Your task to perform on an android device: Open Reddit.com Image 0: 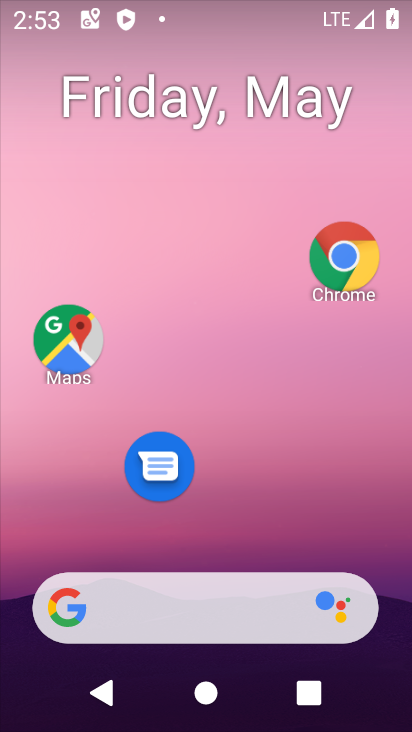
Step 0: click (346, 246)
Your task to perform on an android device: Open Reddit.com Image 1: 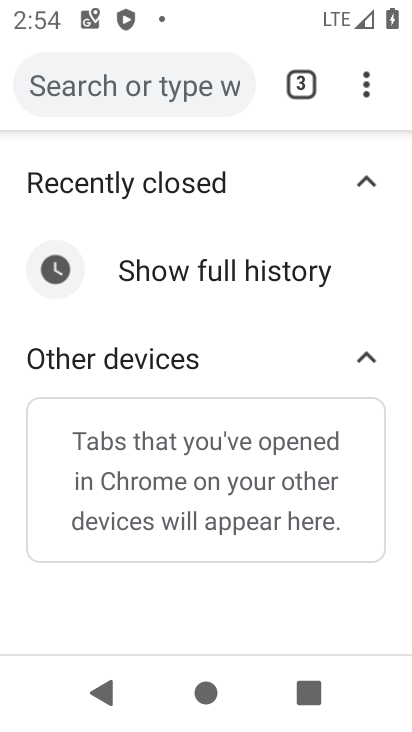
Step 1: click (147, 83)
Your task to perform on an android device: Open Reddit.com Image 2: 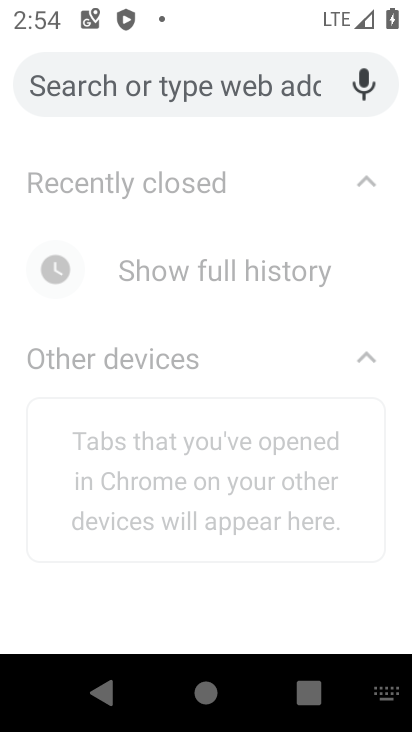
Step 2: type " Reddit.com"
Your task to perform on an android device: Open Reddit.com Image 3: 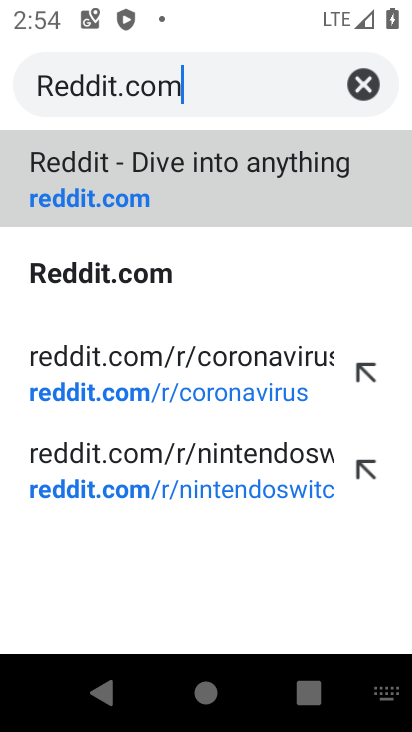
Step 3: click (122, 189)
Your task to perform on an android device: Open Reddit.com Image 4: 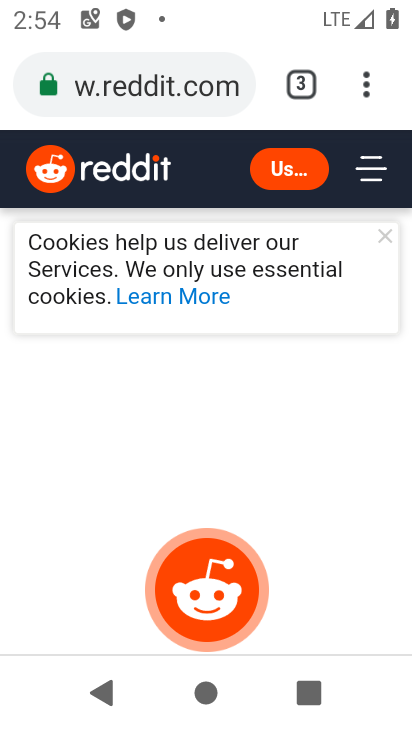
Step 4: task complete